Your task to perform on an android device: turn on wifi Image 0: 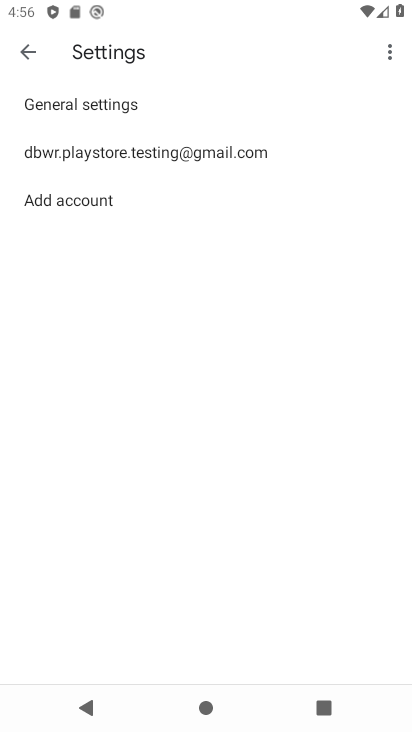
Step 0: drag from (132, 1) to (163, 600)
Your task to perform on an android device: turn on wifi Image 1: 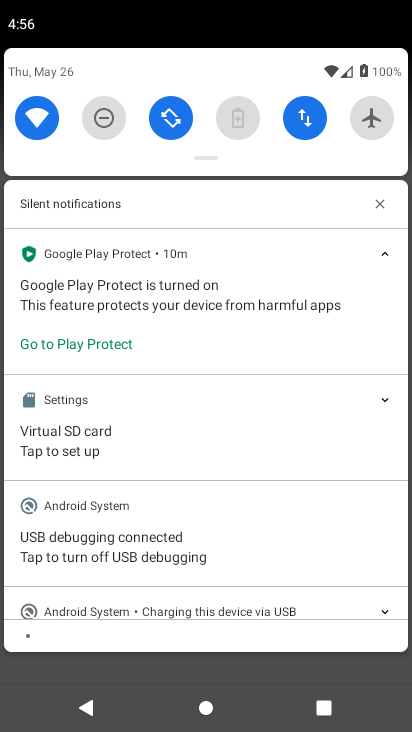
Step 1: task complete